Your task to perform on an android device: turn on sleep mode Image 0: 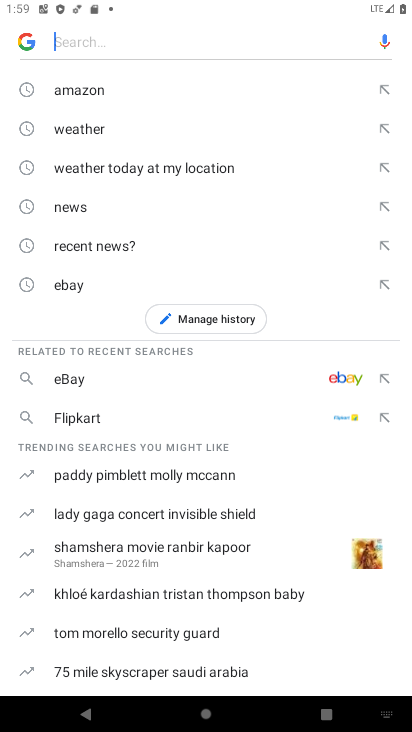
Step 0: press home button
Your task to perform on an android device: turn on sleep mode Image 1: 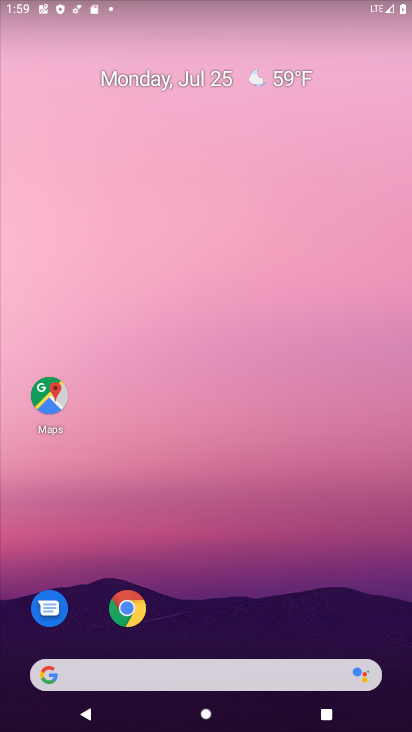
Step 1: drag from (245, 601) to (197, 53)
Your task to perform on an android device: turn on sleep mode Image 2: 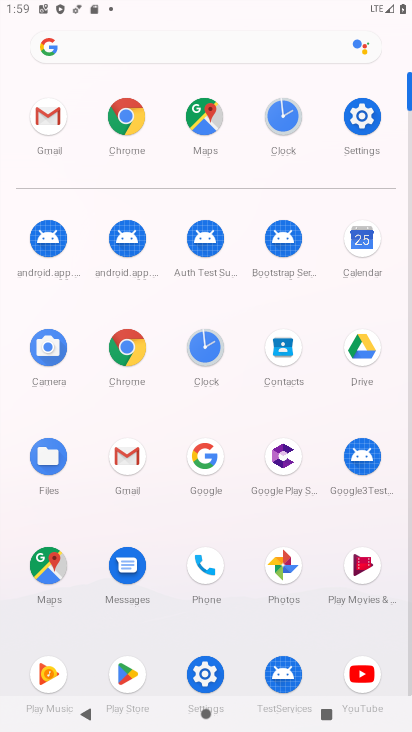
Step 2: click (362, 137)
Your task to perform on an android device: turn on sleep mode Image 3: 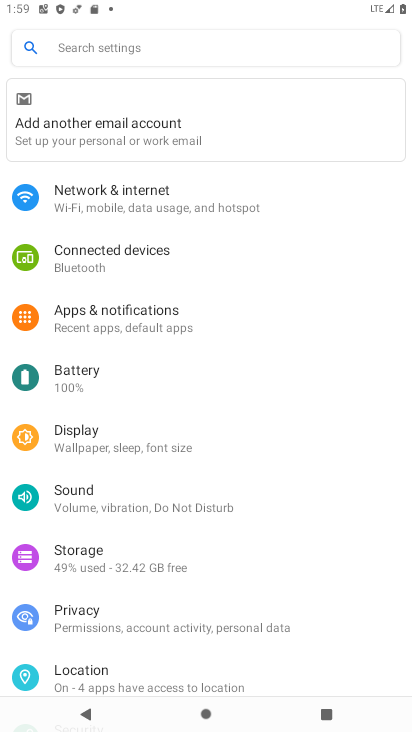
Step 3: task complete